Your task to perform on an android device: What is the news today? Image 0: 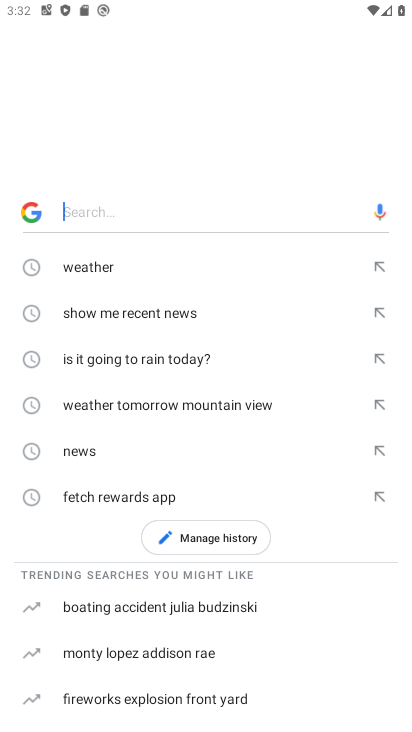
Step 0: click (232, 620)
Your task to perform on an android device: What is the news today? Image 1: 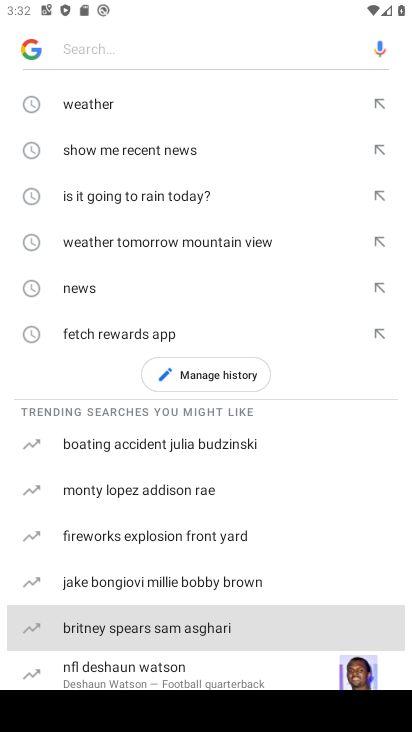
Step 1: click (232, 620)
Your task to perform on an android device: What is the news today? Image 2: 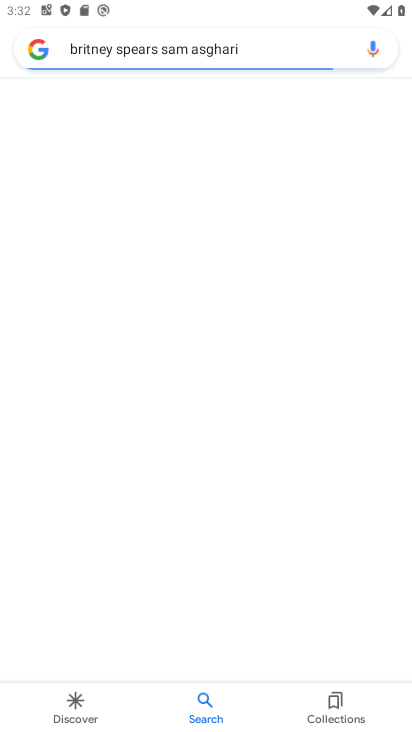
Step 2: press home button
Your task to perform on an android device: What is the news today? Image 3: 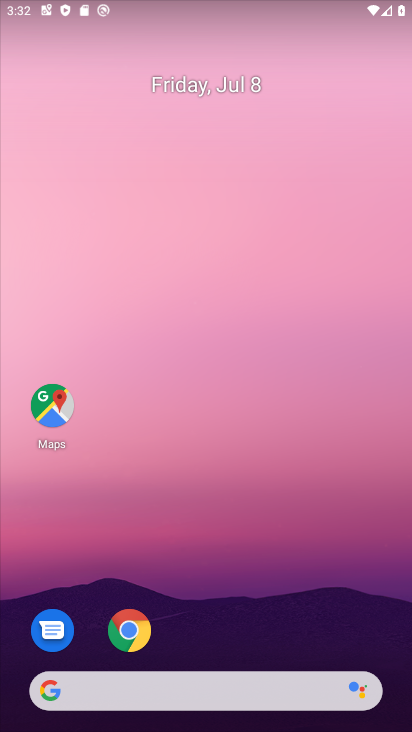
Step 3: drag from (244, 644) to (272, 206)
Your task to perform on an android device: What is the news today? Image 4: 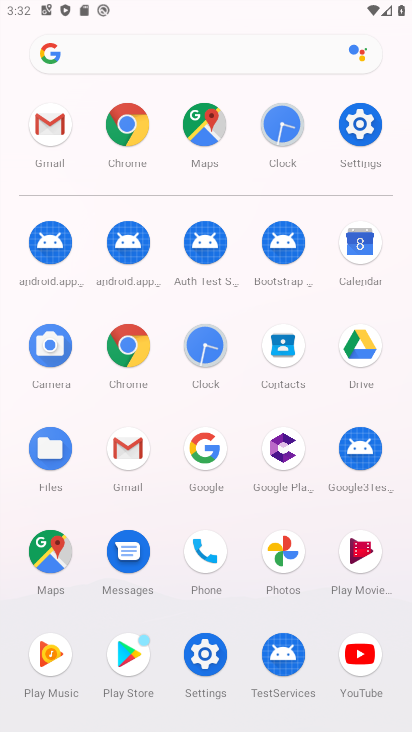
Step 4: click (160, 65)
Your task to perform on an android device: What is the news today? Image 5: 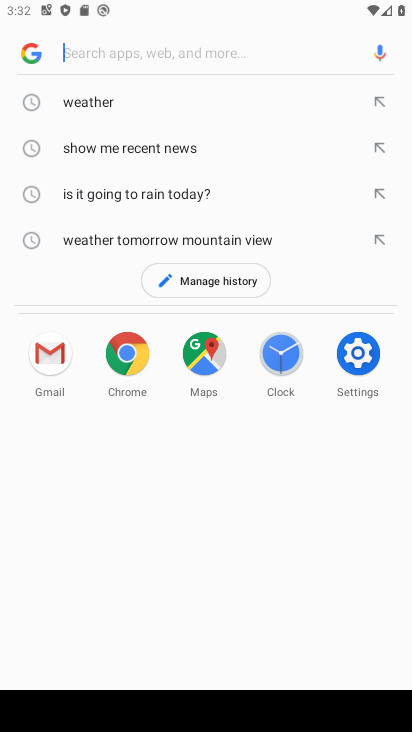
Step 5: click (198, 140)
Your task to perform on an android device: What is the news today? Image 6: 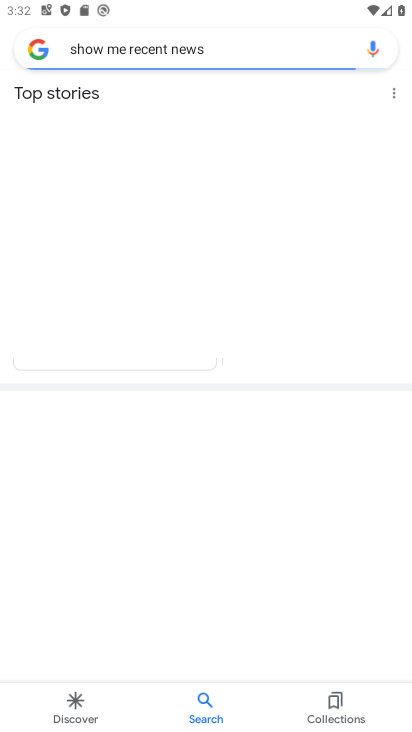
Step 6: task complete